Your task to perform on an android device: see tabs open on other devices in the chrome app Image 0: 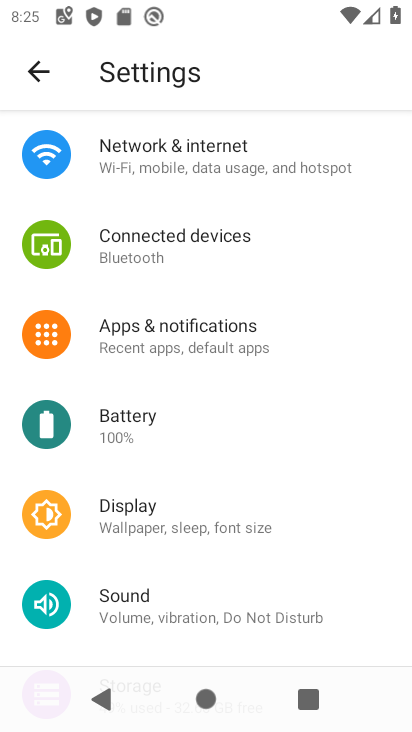
Step 0: press home button
Your task to perform on an android device: see tabs open on other devices in the chrome app Image 1: 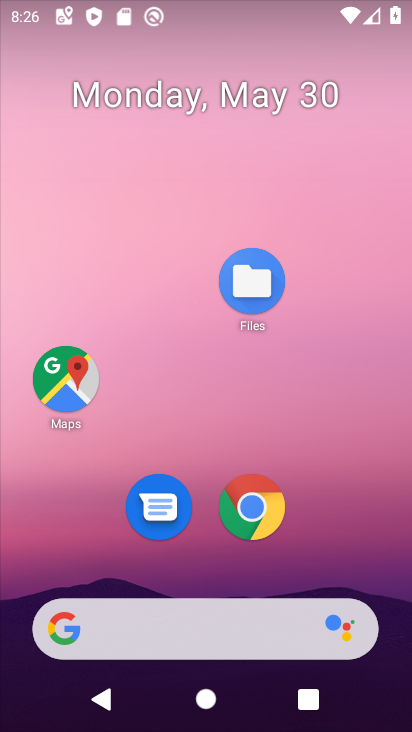
Step 1: click (268, 515)
Your task to perform on an android device: see tabs open on other devices in the chrome app Image 2: 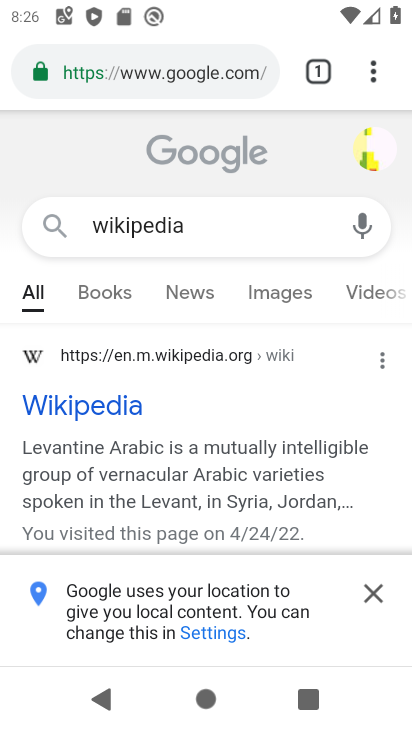
Step 2: click (376, 81)
Your task to perform on an android device: see tabs open on other devices in the chrome app Image 3: 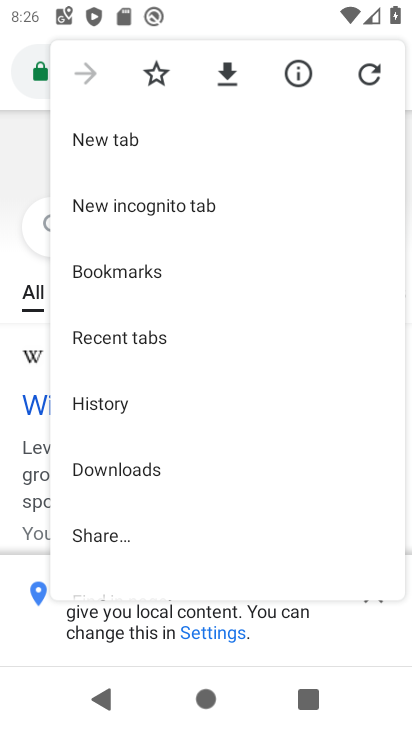
Step 3: click (117, 350)
Your task to perform on an android device: see tabs open on other devices in the chrome app Image 4: 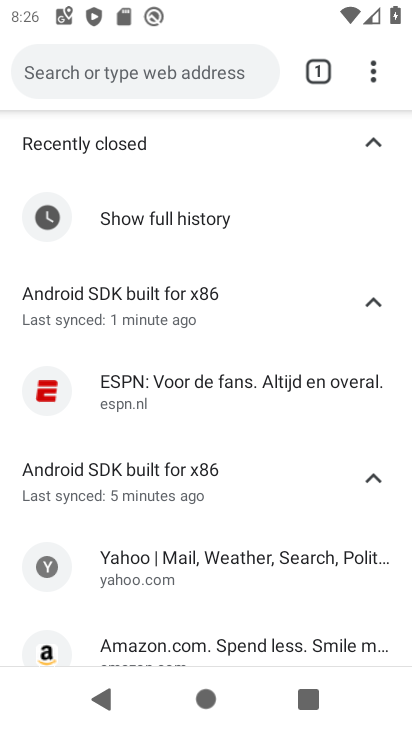
Step 4: task complete